Your task to perform on an android device: turn off notifications settings in the gmail app Image 0: 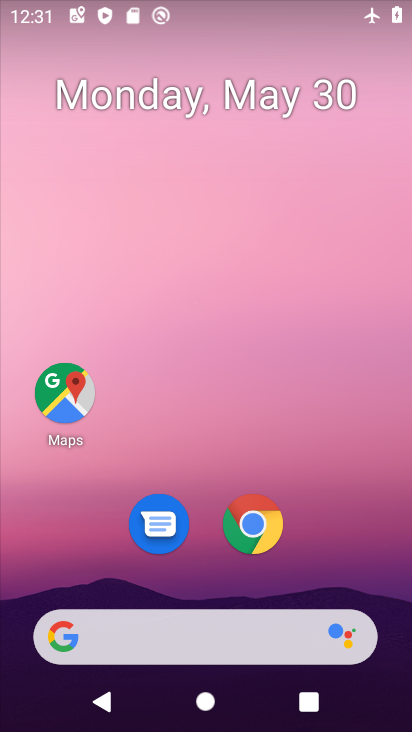
Step 0: drag from (323, 529) to (331, 0)
Your task to perform on an android device: turn off notifications settings in the gmail app Image 1: 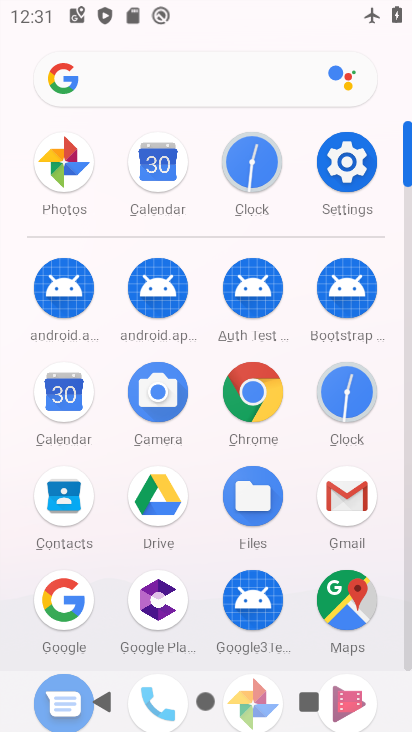
Step 1: click (345, 165)
Your task to perform on an android device: turn off notifications settings in the gmail app Image 2: 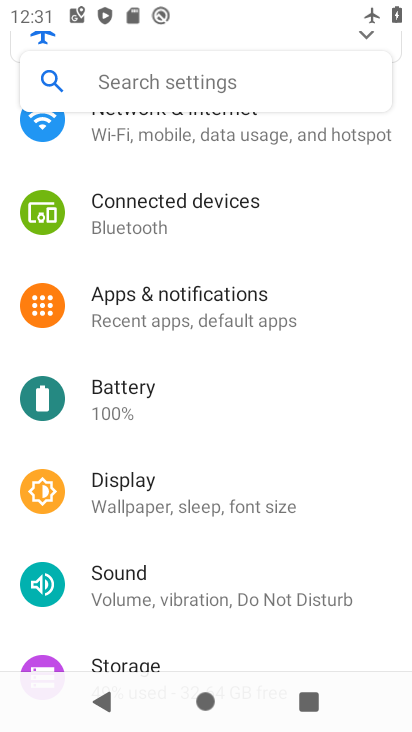
Step 2: drag from (289, 279) to (288, 663)
Your task to perform on an android device: turn off notifications settings in the gmail app Image 3: 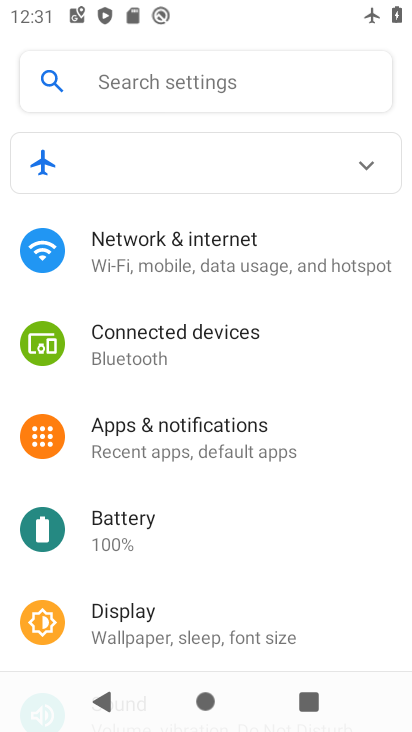
Step 3: click (283, 438)
Your task to perform on an android device: turn off notifications settings in the gmail app Image 4: 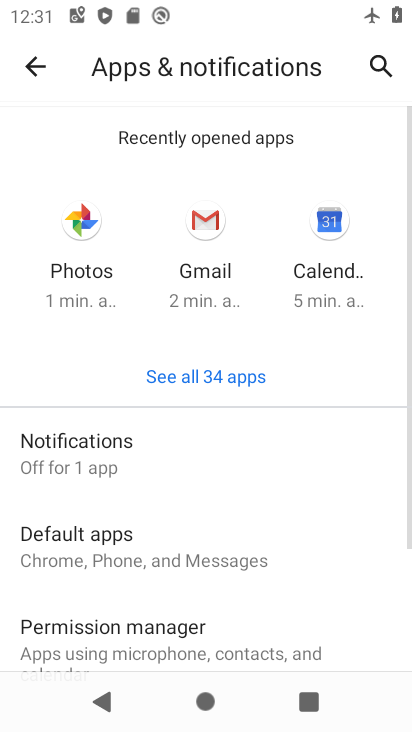
Step 4: click (203, 240)
Your task to perform on an android device: turn off notifications settings in the gmail app Image 5: 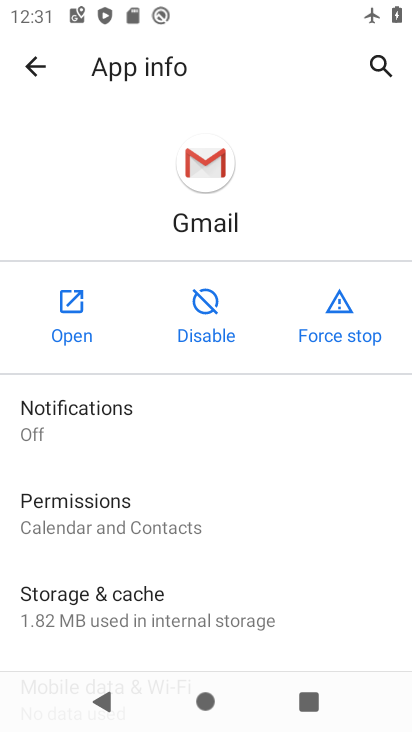
Step 5: task complete